Your task to perform on an android device: remove spam from my inbox in the gmail app Image 0: 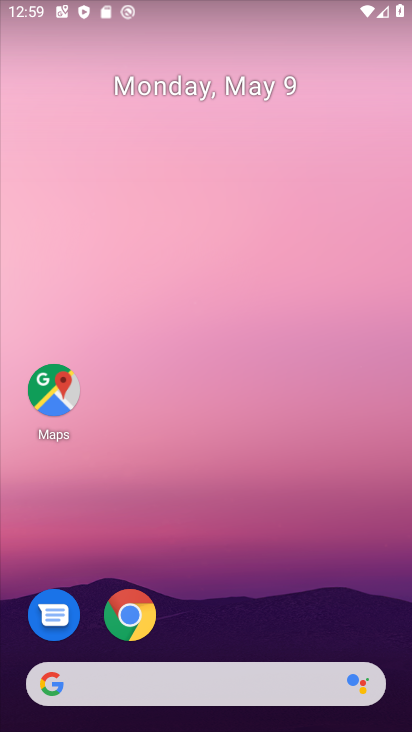
Step 0: drag from (236, 523) to (167, 148)
Your task to perform on an android device: remove spam from my inbox in the gmail app Image 1: 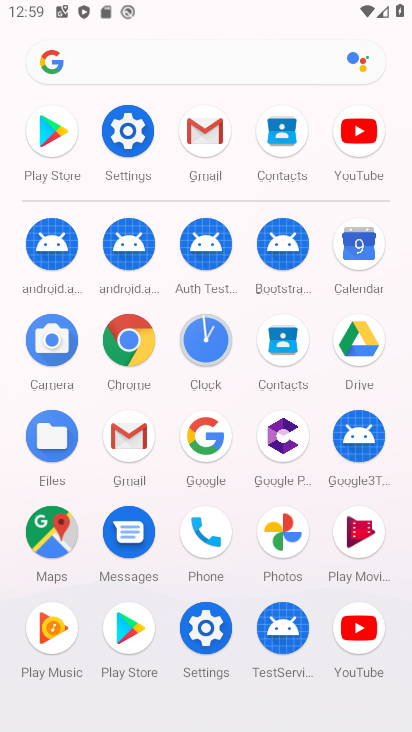
Step 1: click (202, 136)
Your task to perform on an android device: remove spam from my inbox in the gmail app Image 2: 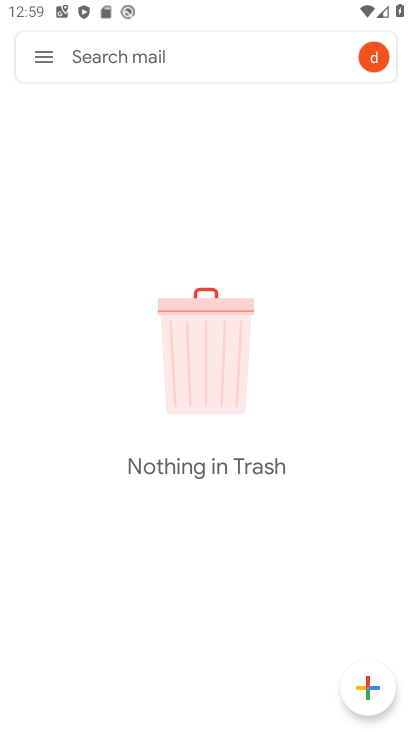
Step 2: click (47, 58)
Your task to perform on an android device: remove spam from my inbox in the gmail app Image 3: 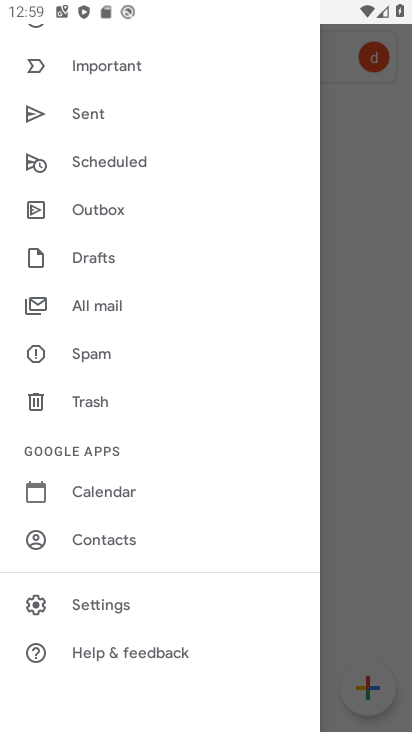
Step 3: click (100, 359)
Your task to perform on an android device: remove spam from my inbox in the gmail app Image 4: 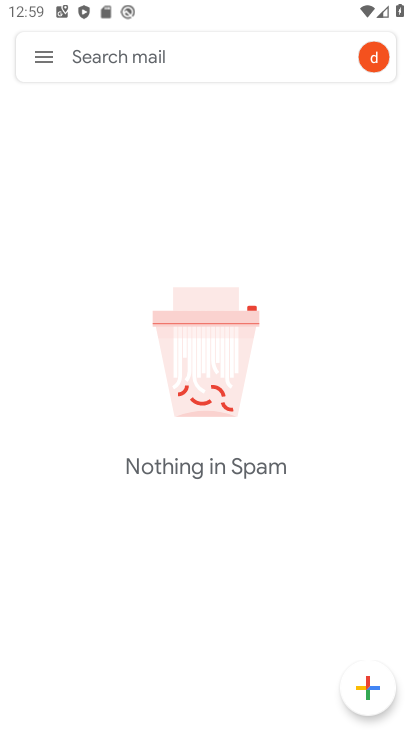
Step 4: task complete